Your task to perform on an android device: Open Amazon Image 0: 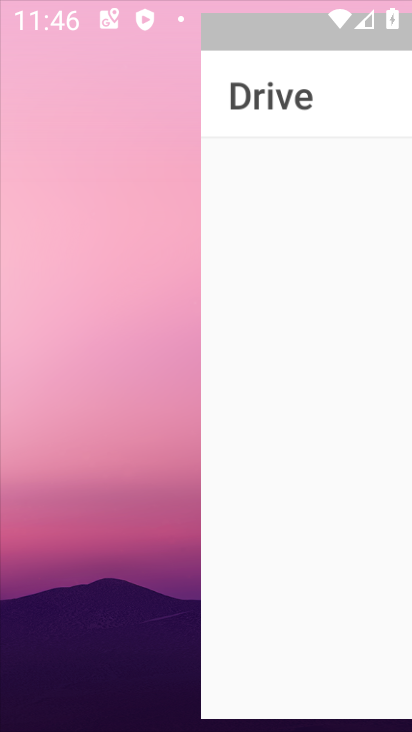
Step 0: press home button
Your task to perform on an android device: Open Amazon Image 1: 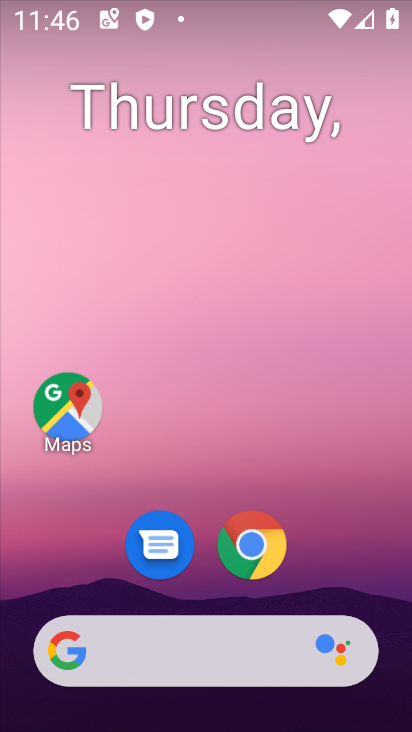
Step 1: drag from (304, 314) to (304, 213)
Your task to perform on an android device: Open Amazon Image 2: 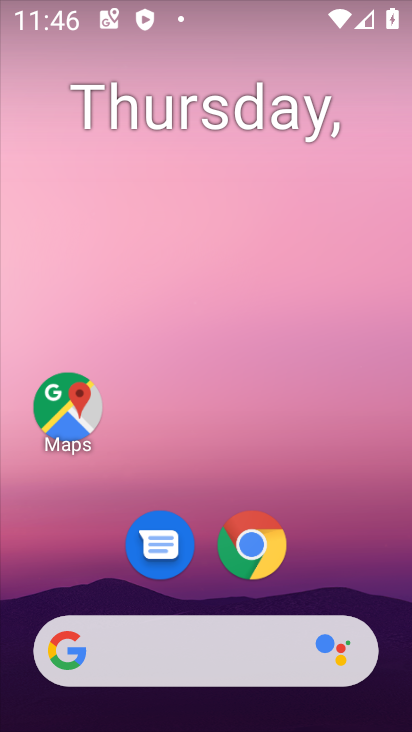
Step 2: drag from (332, 437) to (343, 214)
Your task to perform on an android device: Open Amazon Image 3: 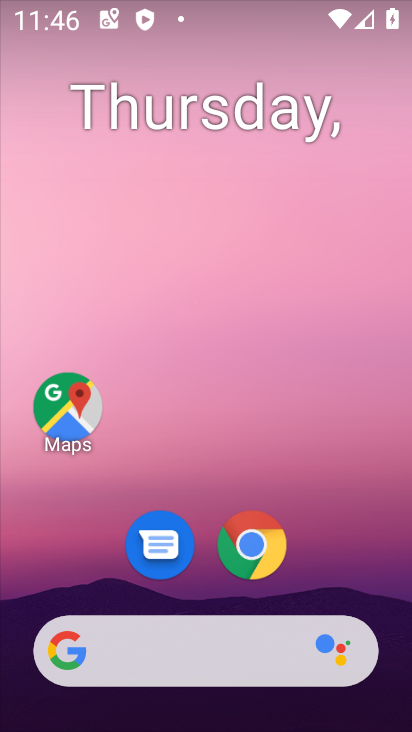
Step 3: click (262, 536)
Your task to perform on an android device: Open Amazon Image 4: 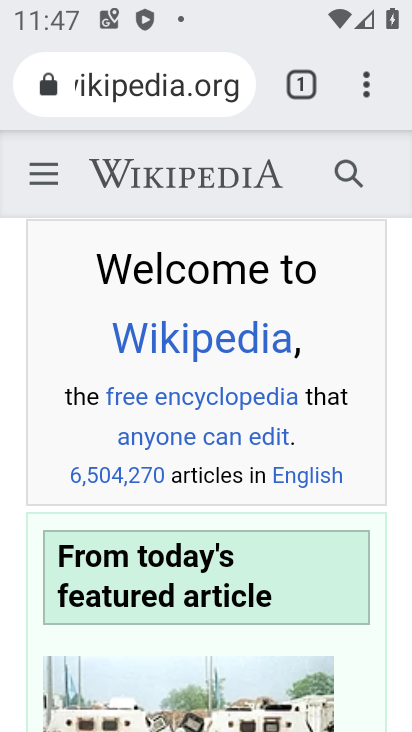
Step 4: click (366, 76)
Your task to perform on an android device: Open Amazon Image 5: 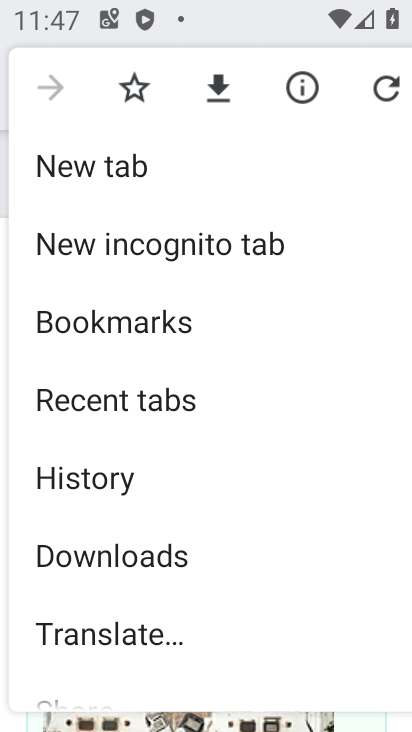
Step 5: click (135, 188)
Your task to perform on an android device: Open Amazon Image 6: 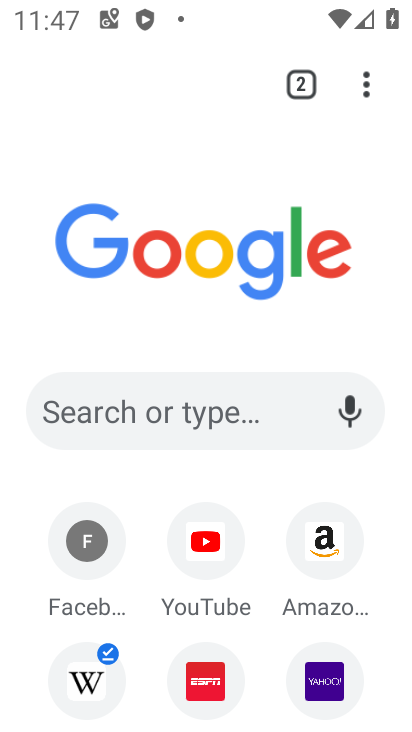
Step 6: click (325, 543)
Your task to perform on an android device: Open Amazon Image 7: 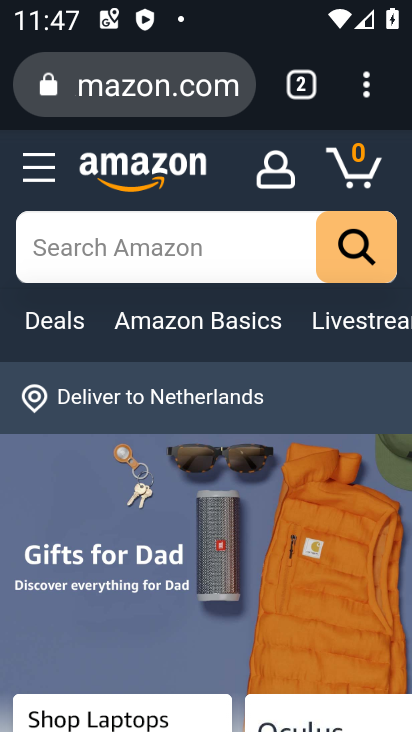
Step 7: task complete